Your task to perform on an android device: stop showing notifications on the lock screen Image 0: 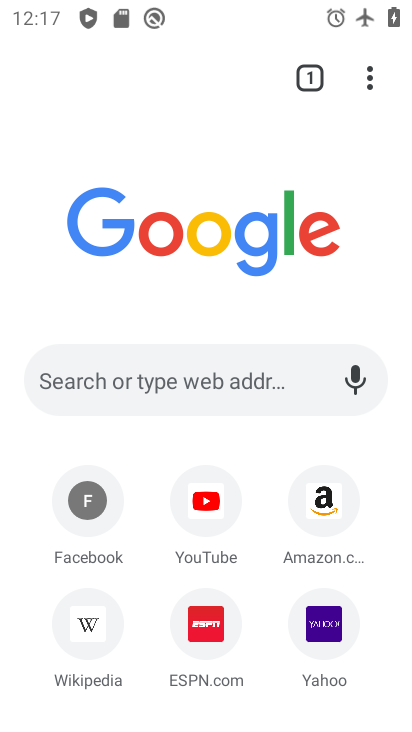
Step 0: press home button
Your task to perform on an android device: stop showing notifications on the lock screen Image 1: 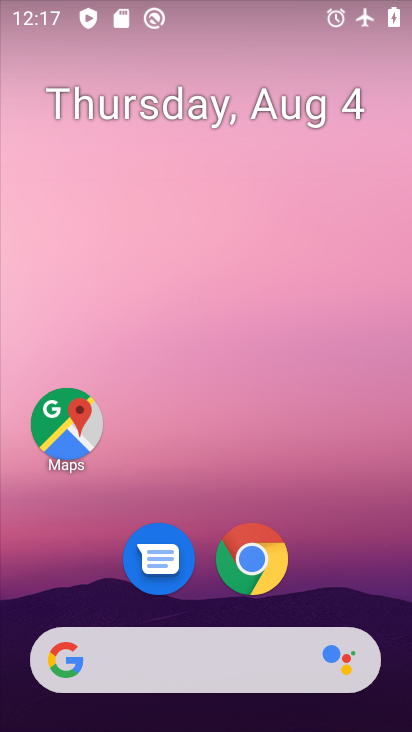
Step 1: drag from (213, 670) to (207, 223)
Your task to perform on an android device: stop showing notifications on the lock screen Image 2: 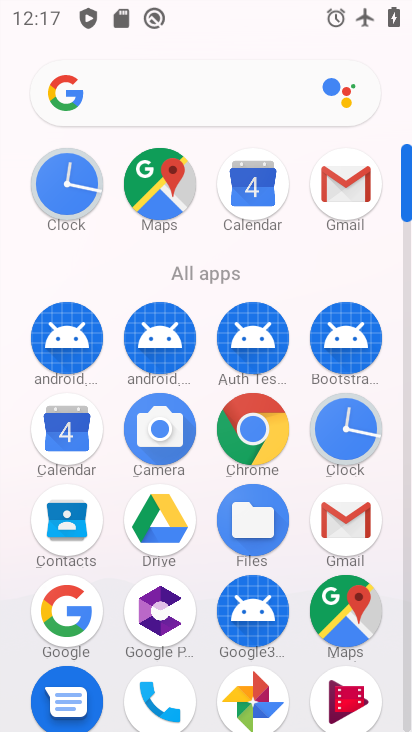
Step 2: drag from (208, 660) to (211, 341)
Your task to perform on an android device: stop showing notifications on the lock screen Image 3: 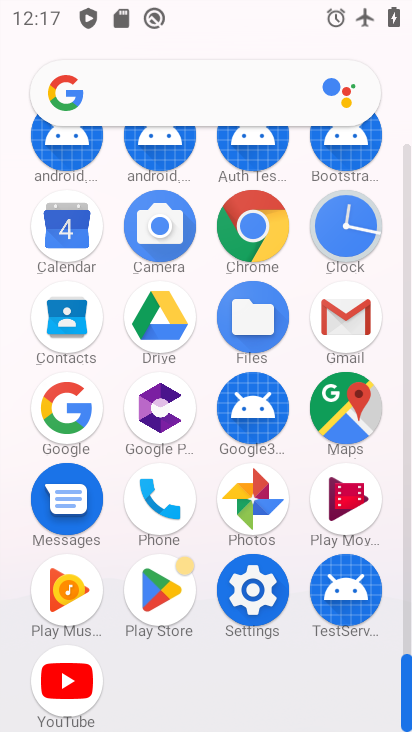
Step 3: click (254, 590)
Your task to perform on an android device: stop showing notifications on the lock screen Image 4: 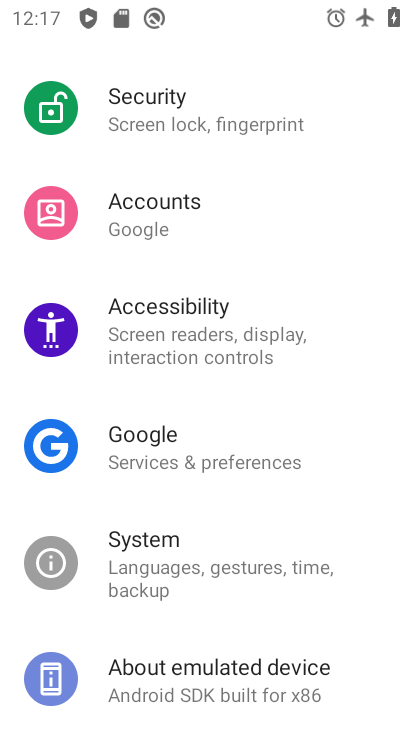
Step 4: drag from (232, 214) to (273, 390)
Your task to perform on an android device: stop showing notifications on the lock screen Image 5: 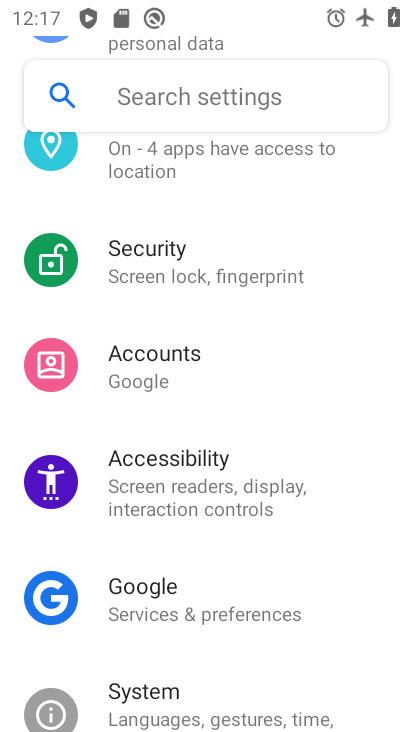
Step 5: drag from (253, 191) to (306, 438)
Your task to perform on an android device: stop showing notifications on the lock screen Image 6: 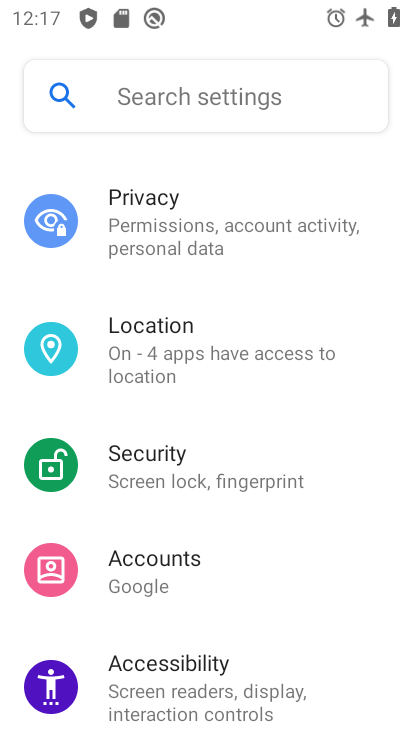
Step 6: drag from (244, 195) to (292, 436)
Your task to perform on an android device: stop showing notifications on the lock screen Image 7: 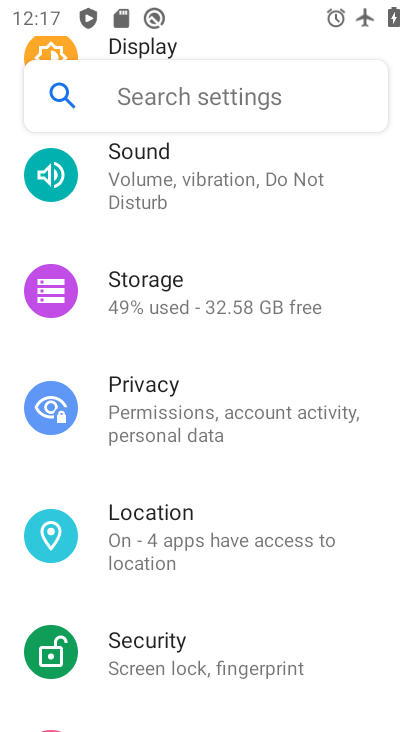
Step 7: drag from (253, 208) to (297, 385)
Your task to perform on an android device: stop showing notifications on the lock screen Image 8: 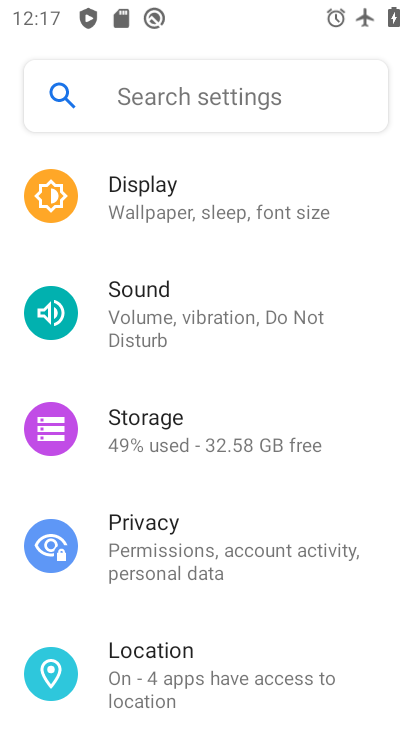
Step 8: drag from (259, 233) to (292, 360)
Your task to perform on an android device: stop showing notifications on the lock screen Image 9: 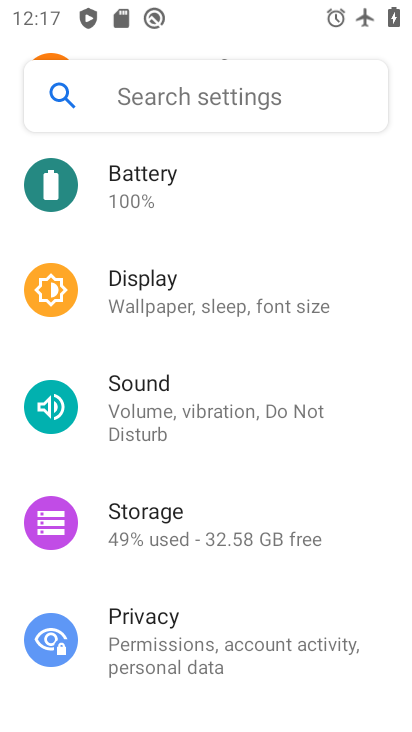
Step 9: drag from (250, 206) to (261, 392)
Your task to perform on an android device: stop showing notifications on the lock screen Image 10: 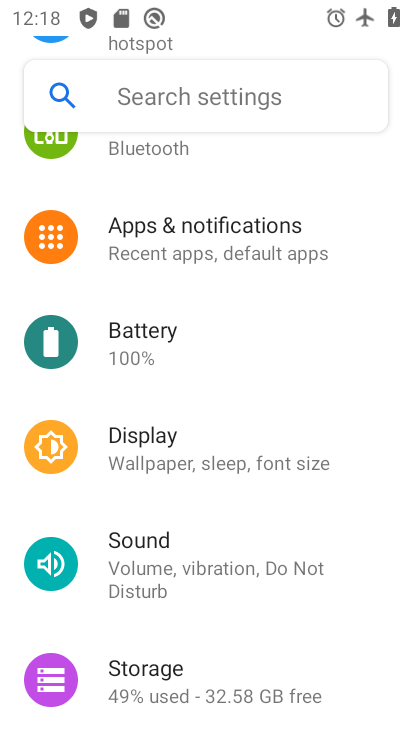
Step 10: click (238, 256)
Your task to perform on an android device: stop showing notifications on the lock screen Image 11: 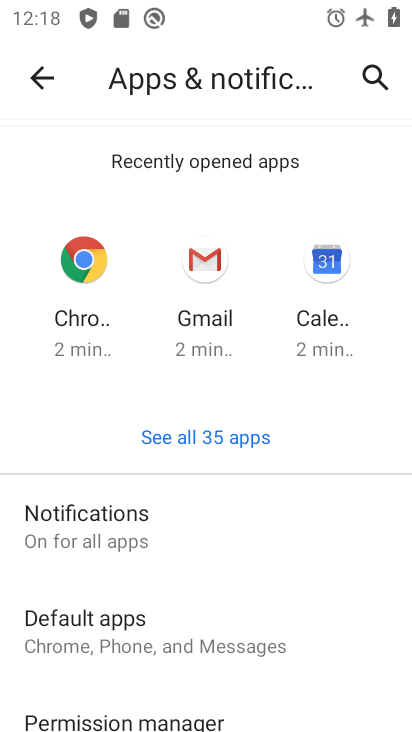
Step 11: click (110, 529)
Your task to perform on an android device: stop showing notifications on the lock screen Image 12: 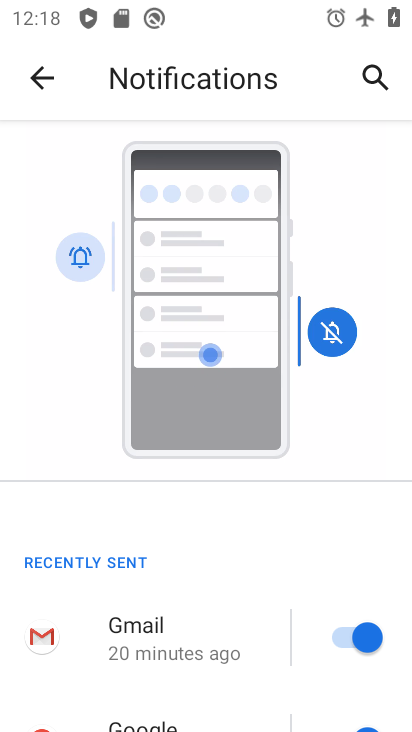
Step 12: drag from (147, 684) to (201, 465)
Your task to perform on an android device: stop showing notifications on the lock screen Image 13: 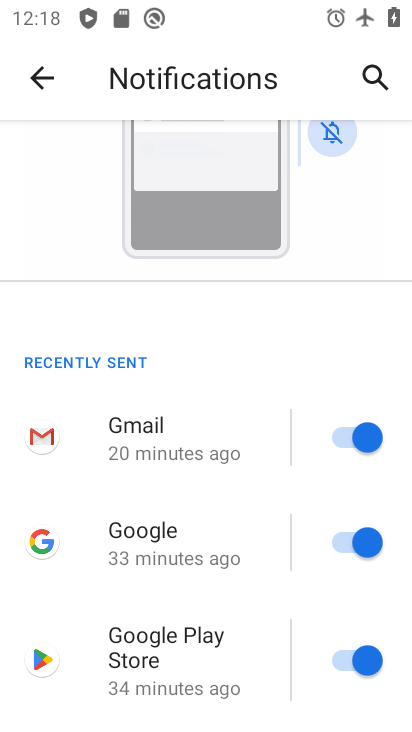
Step 13: drag from (152, 604) to (203, 464)
Your task to perform on an android device: stop showing notifications on the lock screen Image 14: 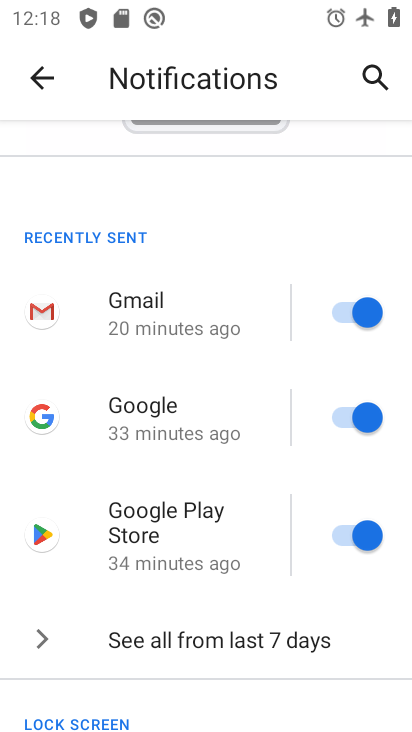
Step 14: drag from (167, 604) to (233, 376)
Your task to perform on an android device: stop showing notifications on the lock screen Image 15: 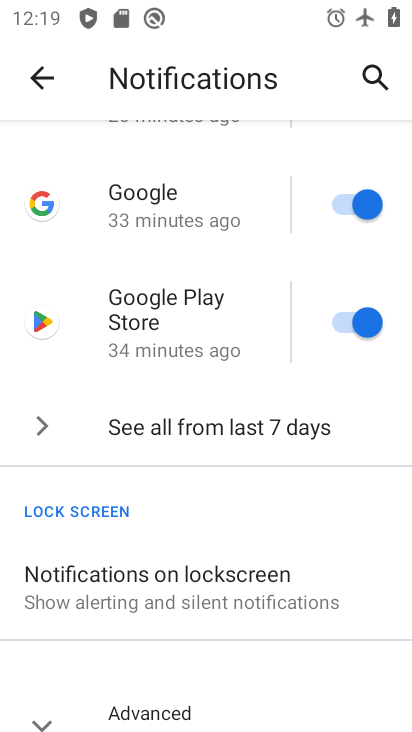
Step 15: click (167, 597)
Your task to perform on an android device: stop showing notifications on the lock screen Image 16: 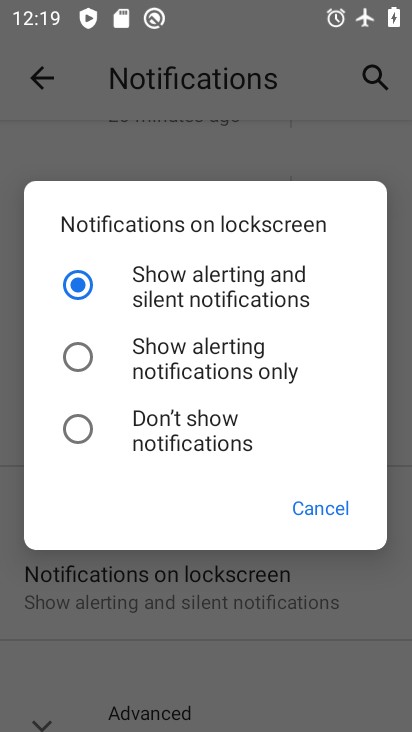
Step 16: click (68, 437)
Your task to perform on an android device: stop showing notifications on the lock screen Image 17: 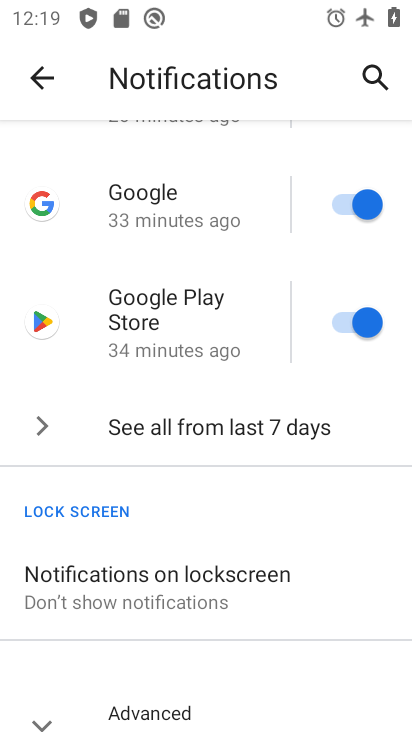
Step 17: task complete